Your task to perform on an android device: Open the web browser Image 0: 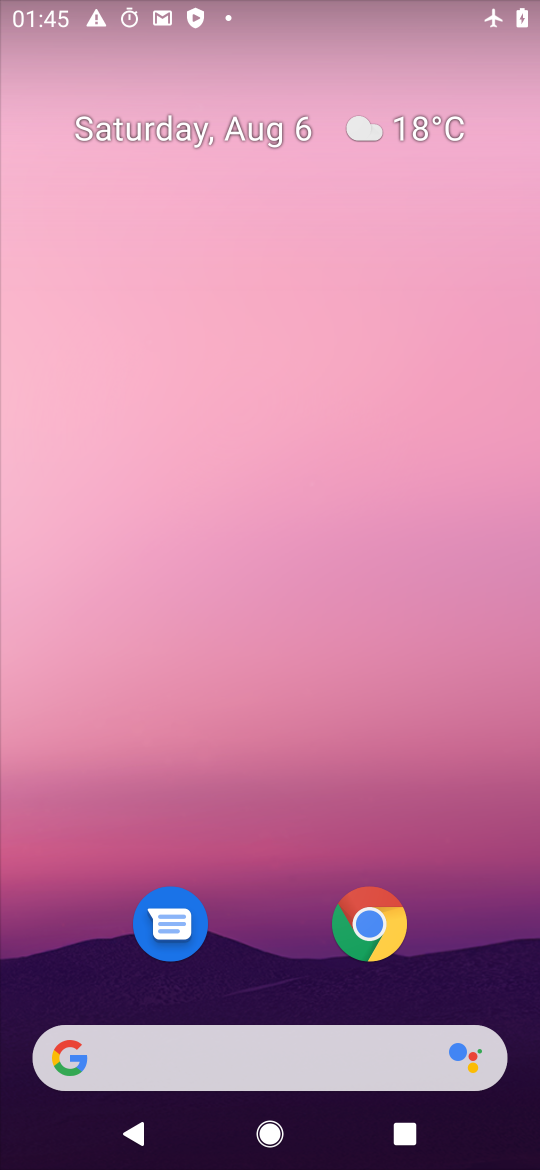
Step 0: drag from (296, 1022) to (291, 224)
Your task to perform on an android device: Open the web browser Image 1: 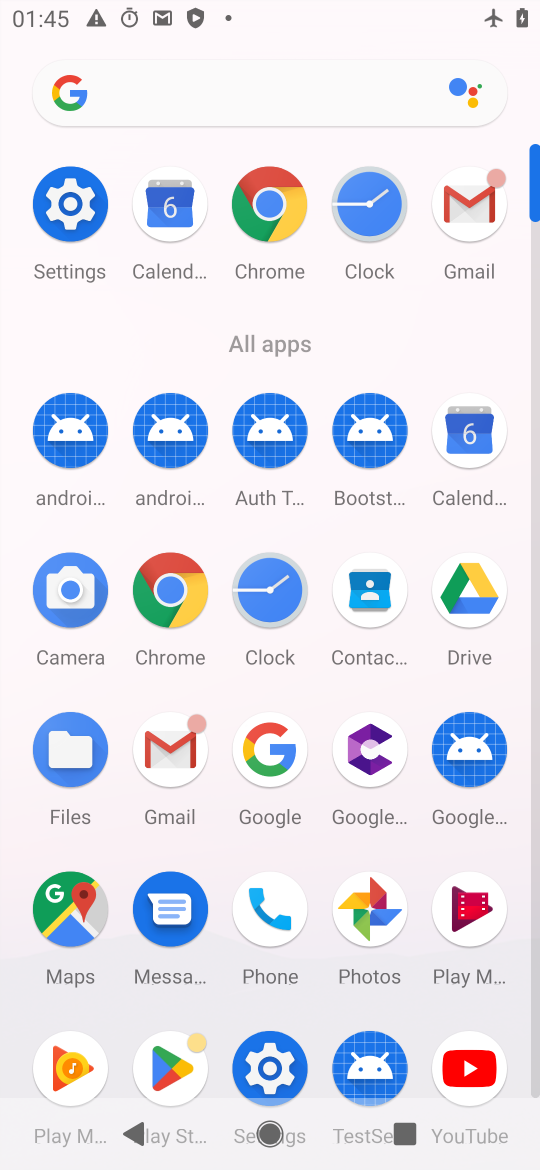
Step 1: click (154, 572)
Your task to perform on an android device: Open the web browser Image 2: 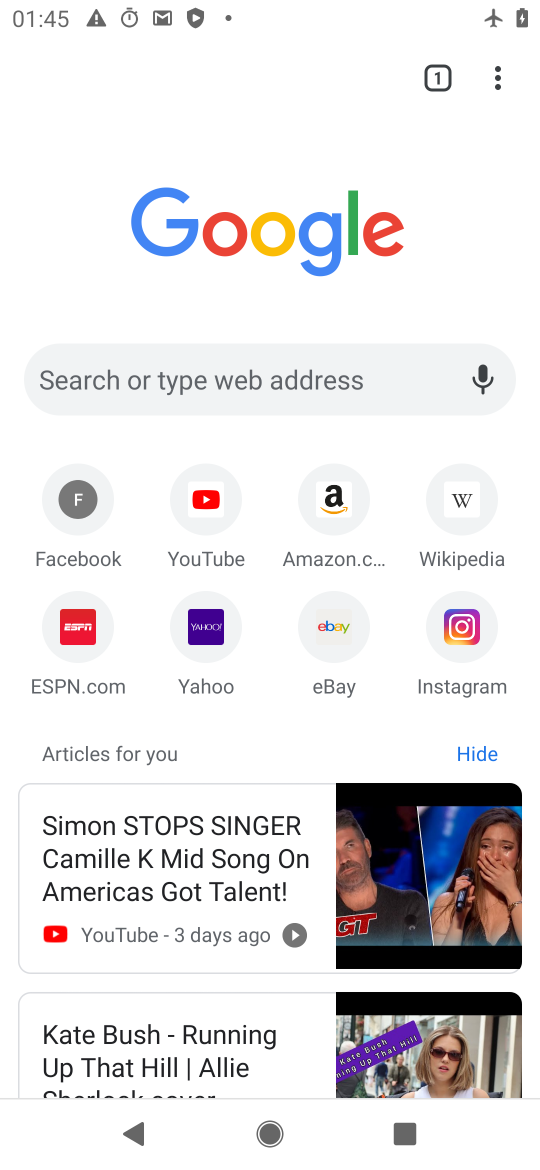
Step 2: task complete